Your task to perform on an android device: turn on sleep mode Image 0: 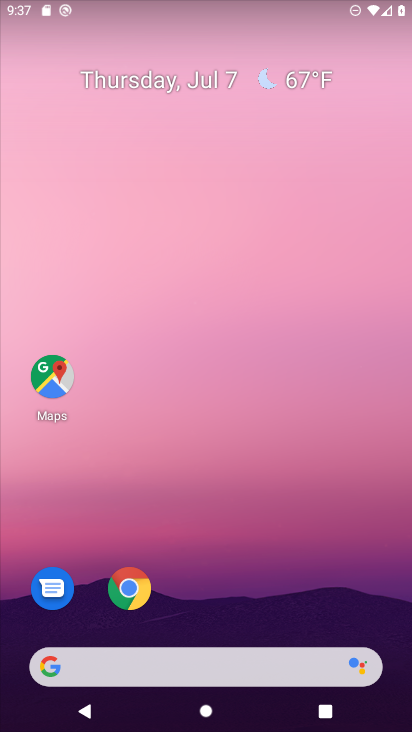
Step 0: drag from (271, 625) to (205, 2)
Your task to perform on an android device: turn on sleep mode Image 1: 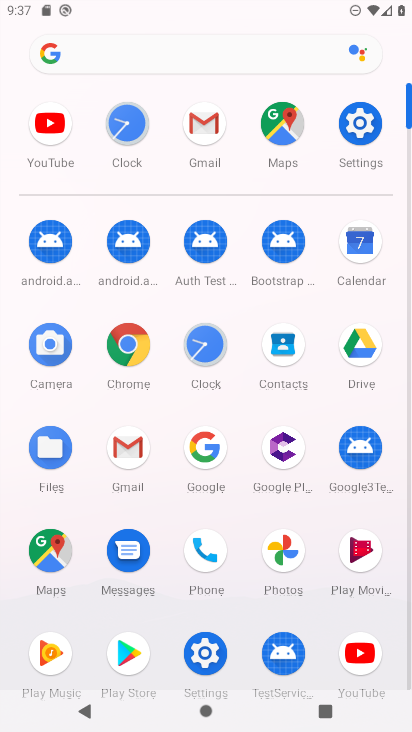
Step 1: click (360, 120)
Your task to perform on an android device: turn on sleep mode Image 2: 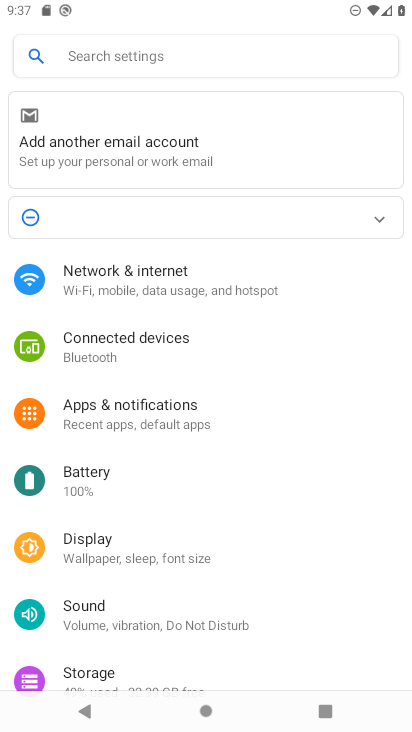
Step 2: drag from (183, 389) to (192, 306)
Your task to perform on an android device: turn on sleep mode Image 3: 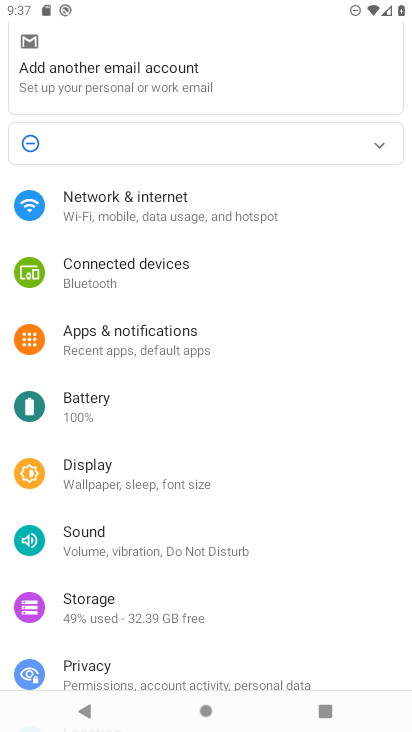
Step 3: click (110, 484)
Your task to perform on an android device: turn on sleep mode Image 4: 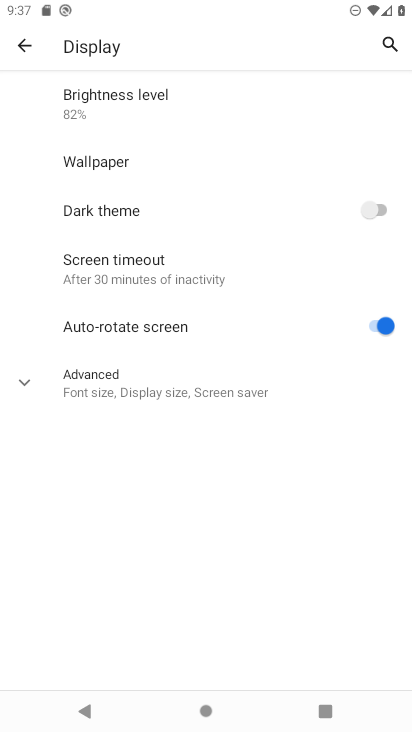
Step 4: click (118, 382)
Your task to perform on an android device: turn on sleep mode Image 5: 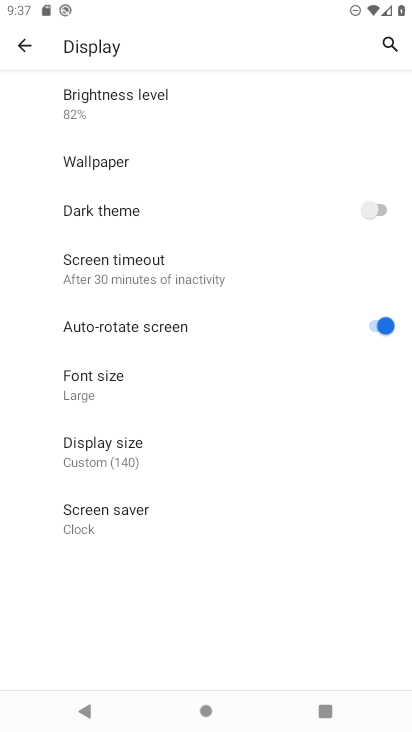
Step 5: click (96, 495)
Your task to perform on an android device: turn on sleep mode Image 6: 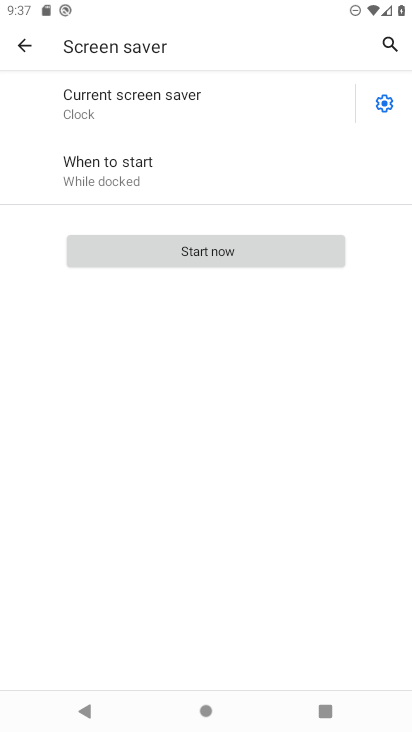
Step 6: click (142, 98)
Your task to perform on an android device: turn on sleep mode Image 7: 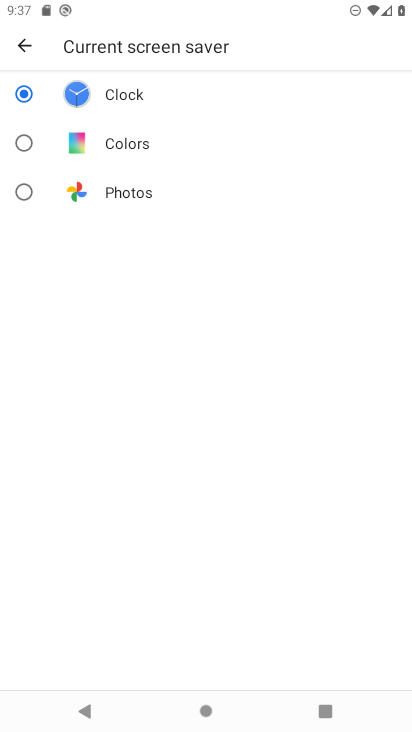
Step 7: press back button
Your task to perform on an android device: turn on sleep mode Image 8: 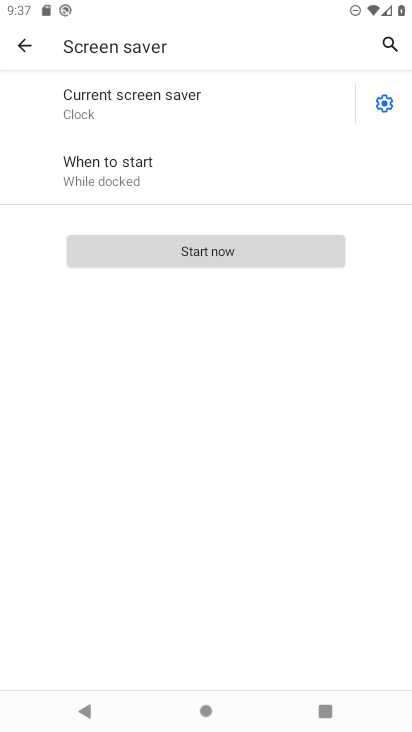
Step 8: press back button
Your task to perform on an android device: turn on sleep mode Image 9: 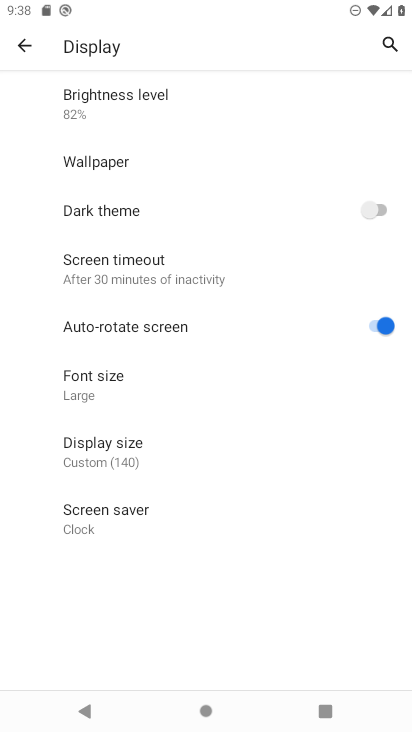
Step 9: click (180, 287)
Your task to perform on an android device: turn on sleep mode Image 10: 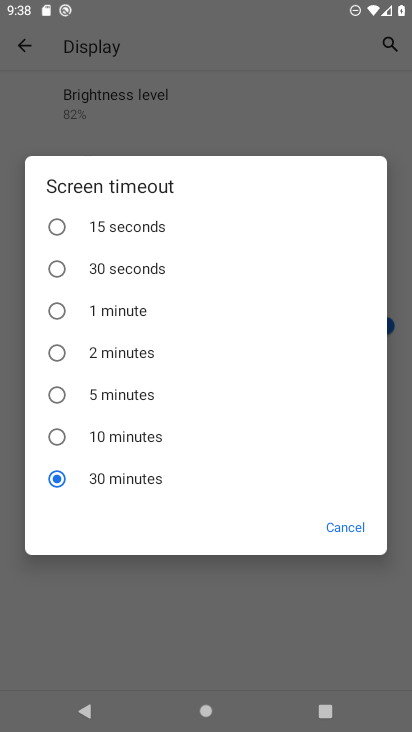
Step 10: drag from (151, 474) to (244, 291)
Your task to perform on an android device: turn on sleep mode Image 11: 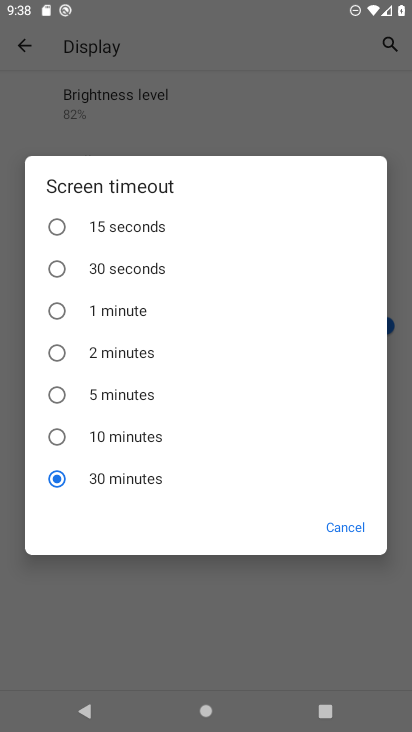
Step 11: drag from (234, 259) to (224, 460)
Your task to perform on an android device: turn on sleep mode Image 12: 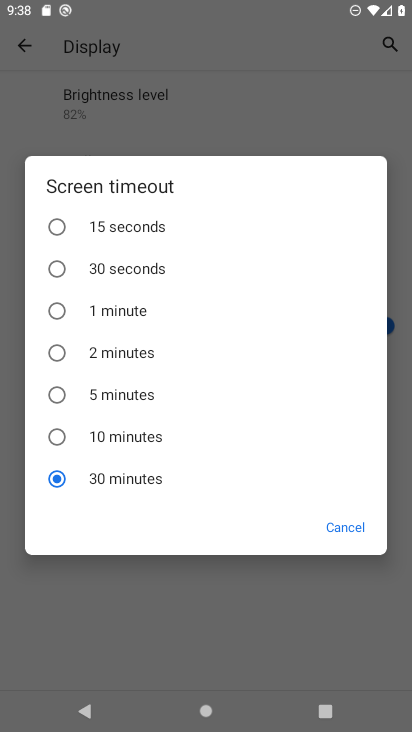
Step 12: click (346, 515)
Your task to perform on an android device: turn on sleep mode Image 13: 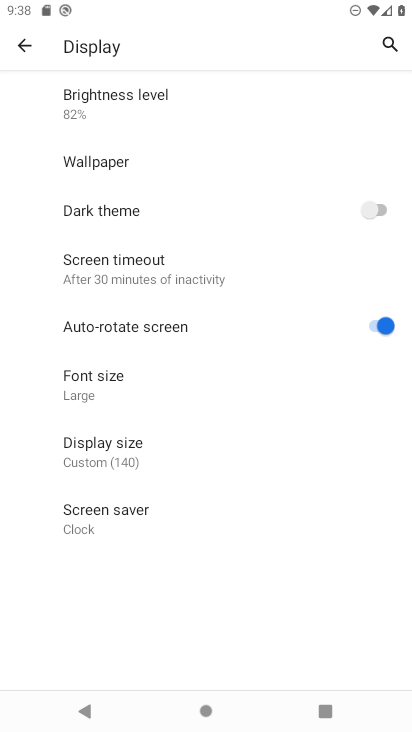
Step 13: task complete